Your task to perform on an android device: When is my next appointment? Image 0: 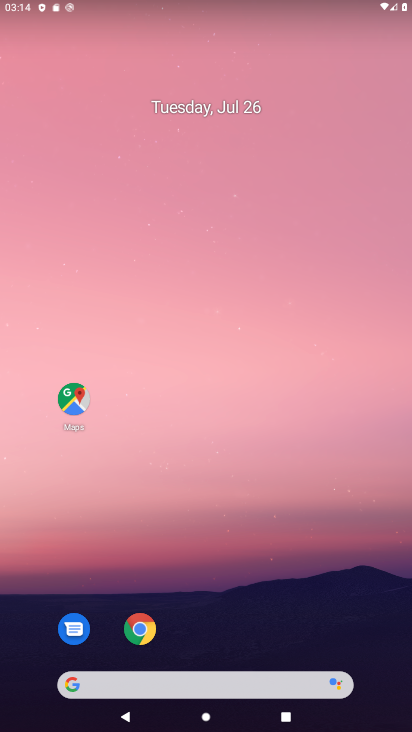
Step 0: press home button
Your task to perform on an android device: When is my next appointment? Image 1: 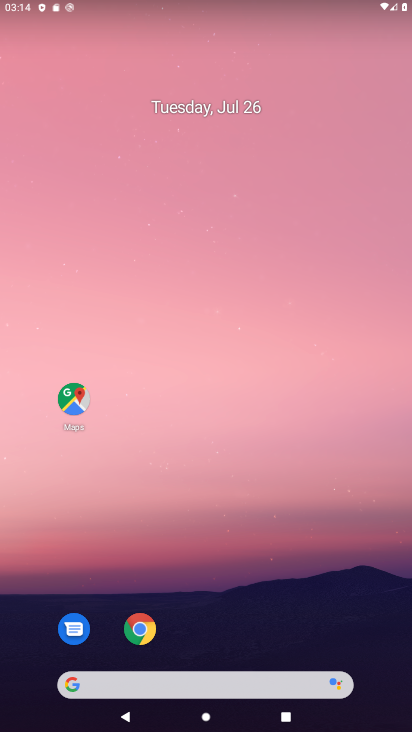
Step 1: drag from (313, 629) to (269, 89)
Your task to perform on an android device: When is my next appointment? Image 2: 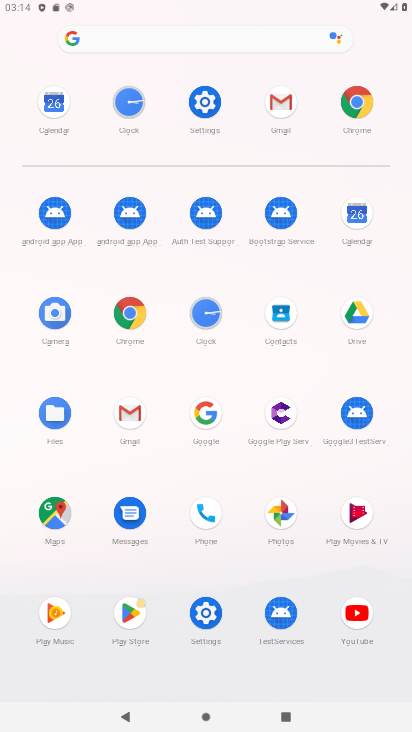
Step 2: click (341, 213)
Your task to perform on an android device: When is my next appointment? Image 3: 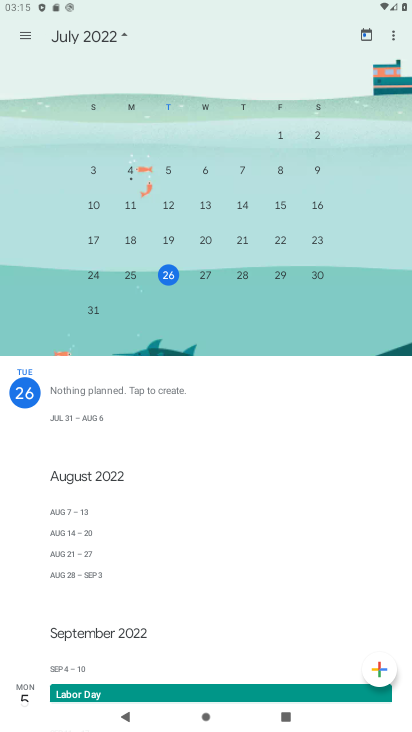
Step 3: click (138, 35)
Your task to perform on an android device: When is my next appointment? Image 4: 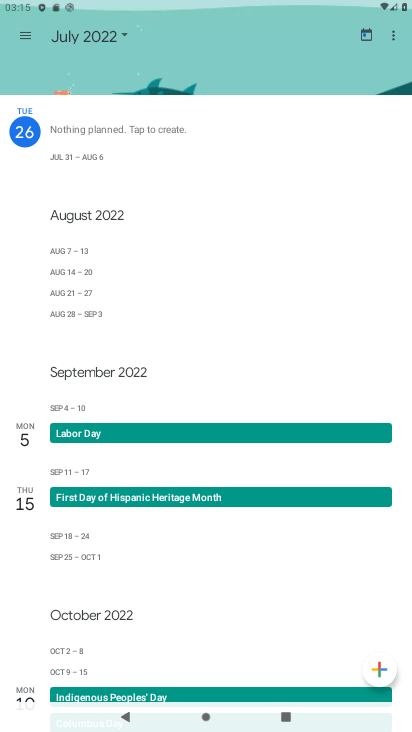
Step 4: task complete